Your task to perform on an android device: turn smart compose on in the gmail app Image 0: 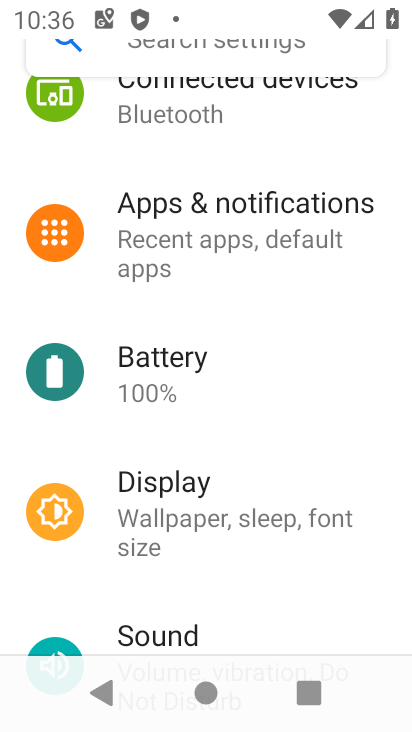
Step 0: press home button
Your task to perform on an android device: turn smart compose on in the gmail app Image 1: 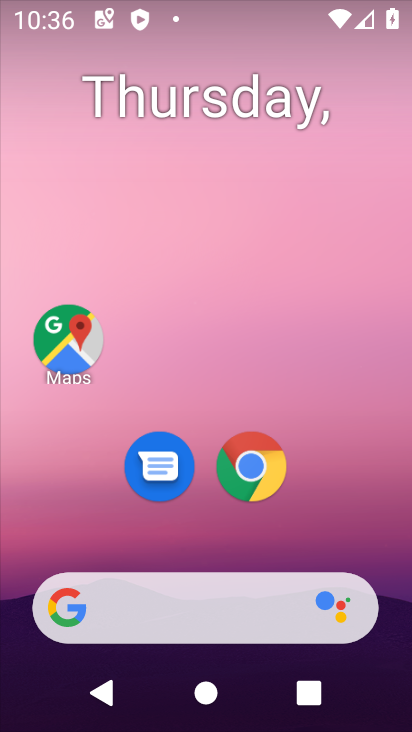
Step 1: drag from (236, 536) to (215, 111)
Your task to perform on an android device: turn smart compose on in the gmail app Image 2: 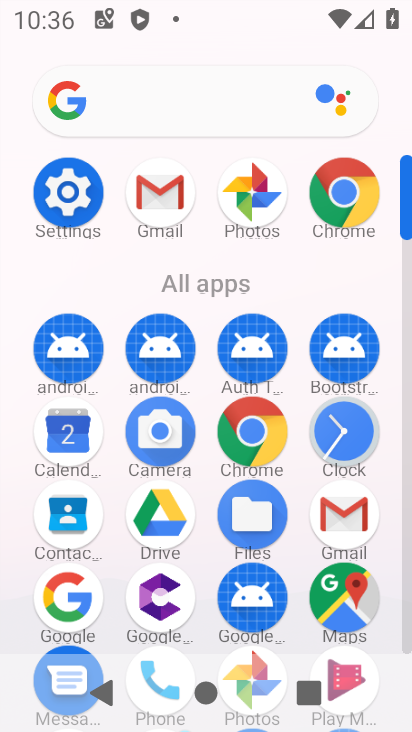
Step 2: click (159, 227)
Your task to perform on an android device: turn smart compose on in the gmail app Image 3: 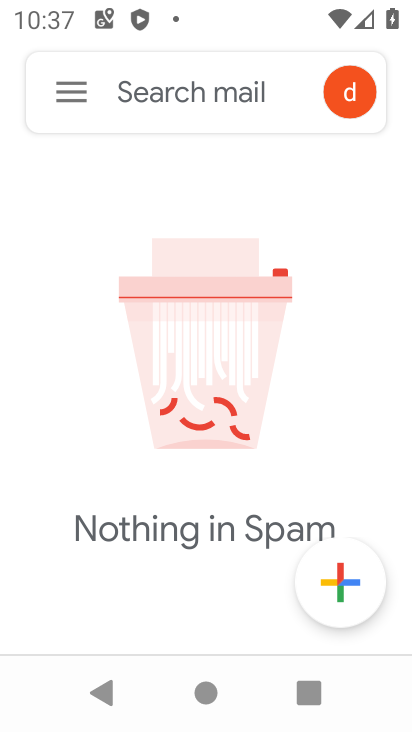
Step 3: click (74, 107)
Your task to perform on an android device: turn smart compose on in the gmail app Image 4: 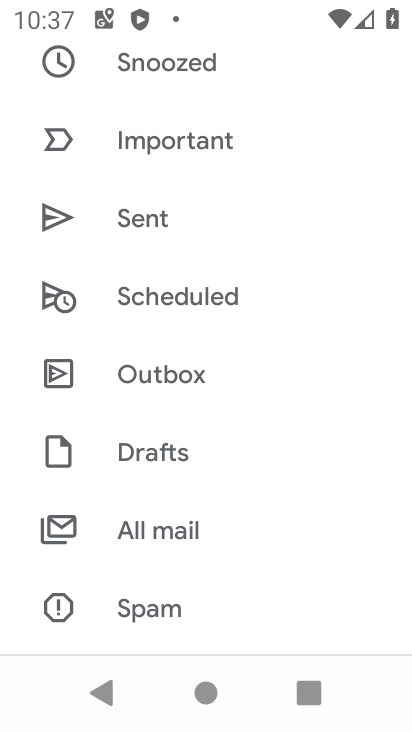
Step 4: drag from (201, 627) to (215, 277)
Your task to perform on an android device: turn smart compose on in the gmail app Image 5: 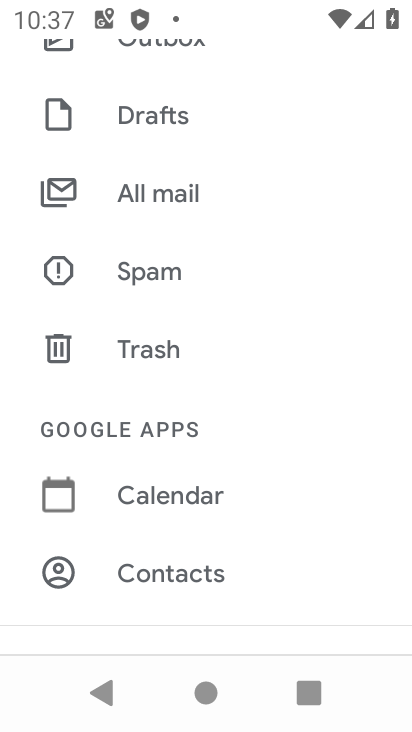
Step 5: drag from (179, 564) to (211, 261)
Your task to perform on an android device: turn smart compose on in the gmail app Image 6: 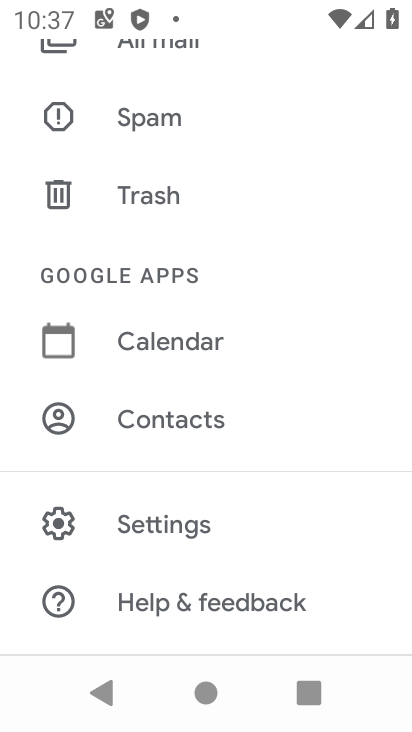
Step 6: click (171, 528)
Your task to perform on an android device: turn smart compose on in the gmail app Image 7: 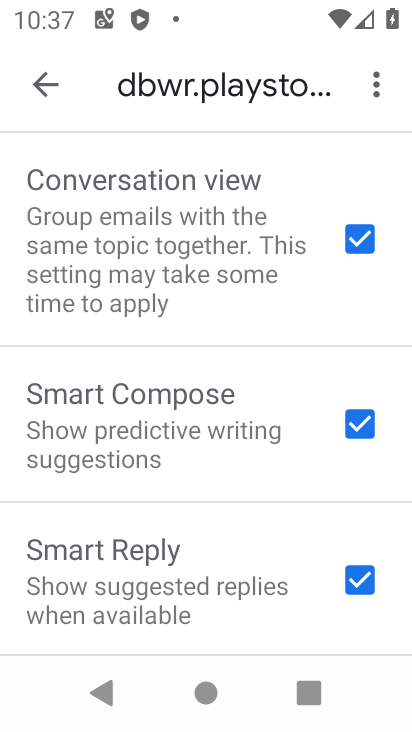
Step 7: task complete